Your task to perform on an android device: check battery use Image 0: 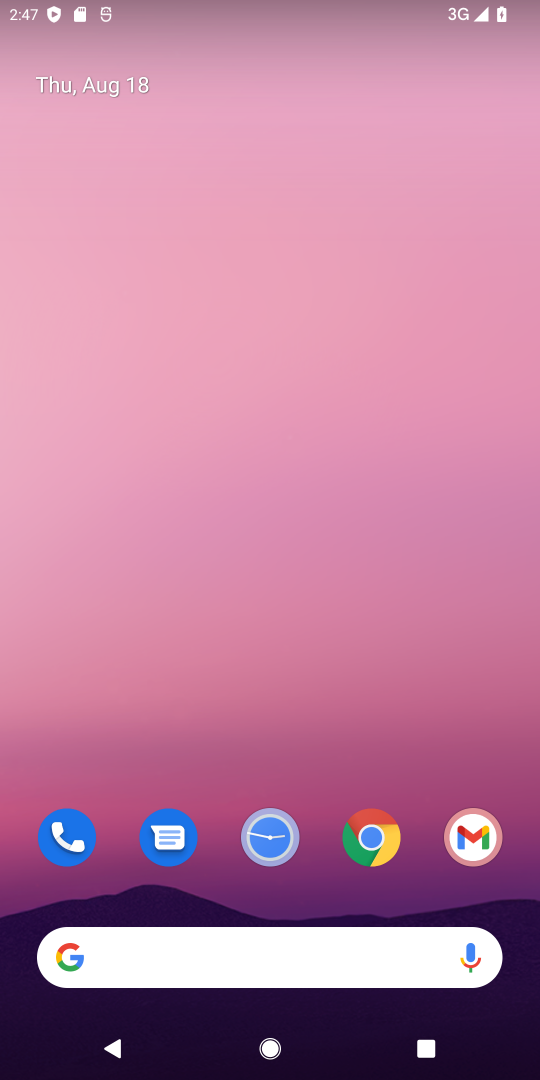
Step 0: drag from (316, 881) to (382, 187)
Your task to perform on an android device: check battery use Image 1: 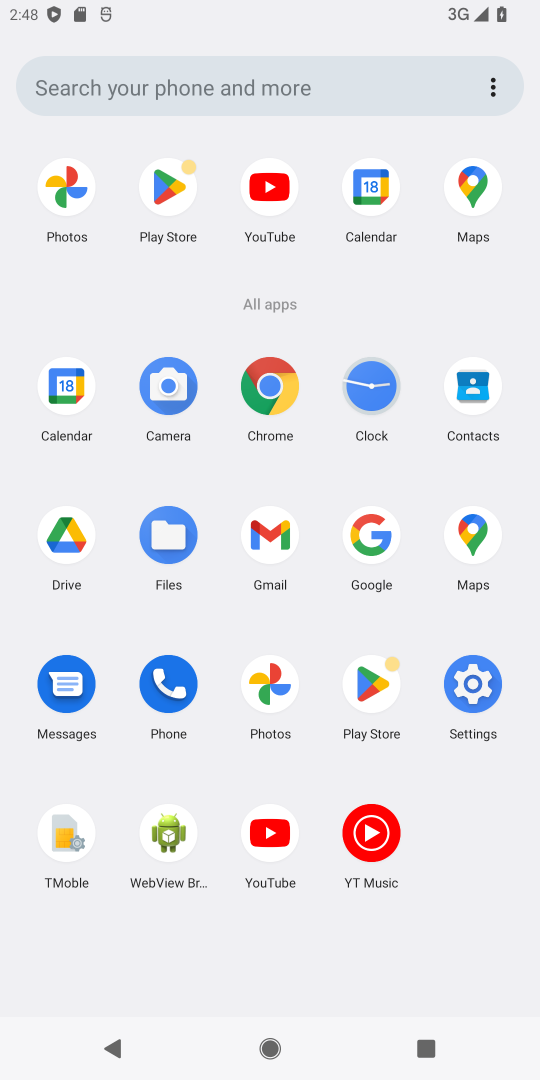
Step 1: click (473, 669)
Your task to perform on an android device: check battery use Image 2: 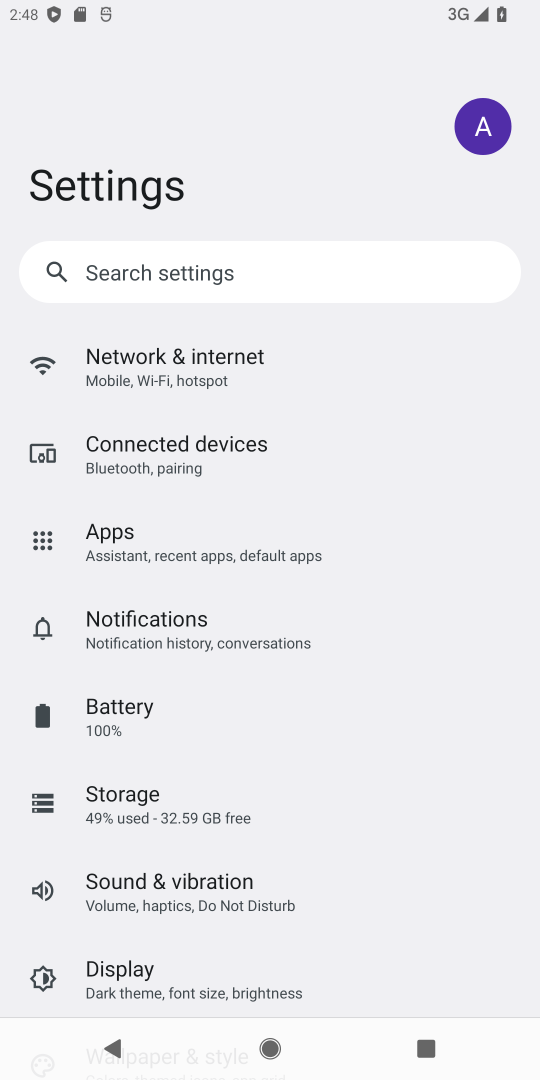
Step 2: drag from (161, 877) to (336, 209)
Your task to perform on an android device: check battery use Image 3: 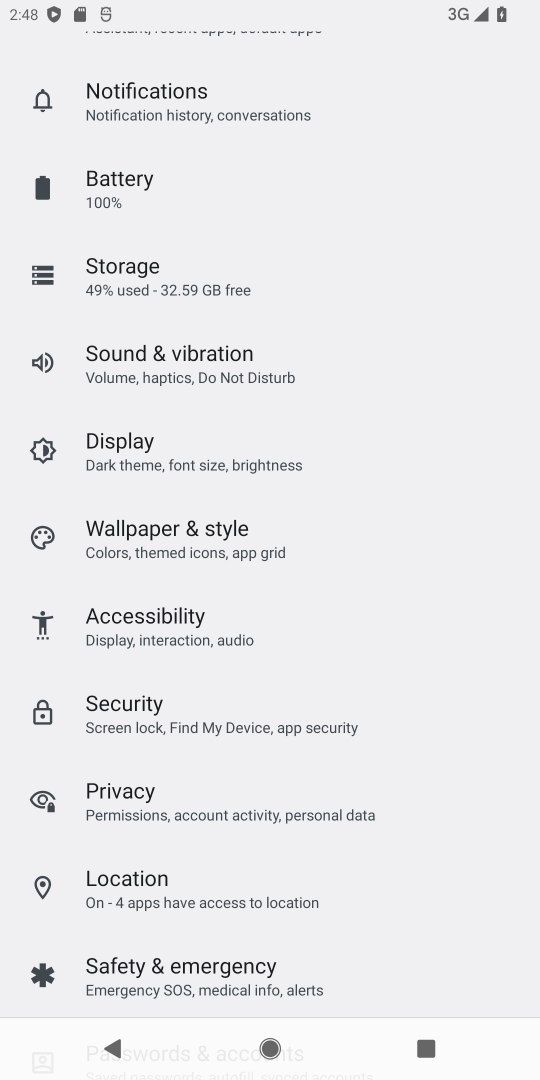
Step 3: click (173, 216)
Your task to perform on an android device: check battery use Image 4: 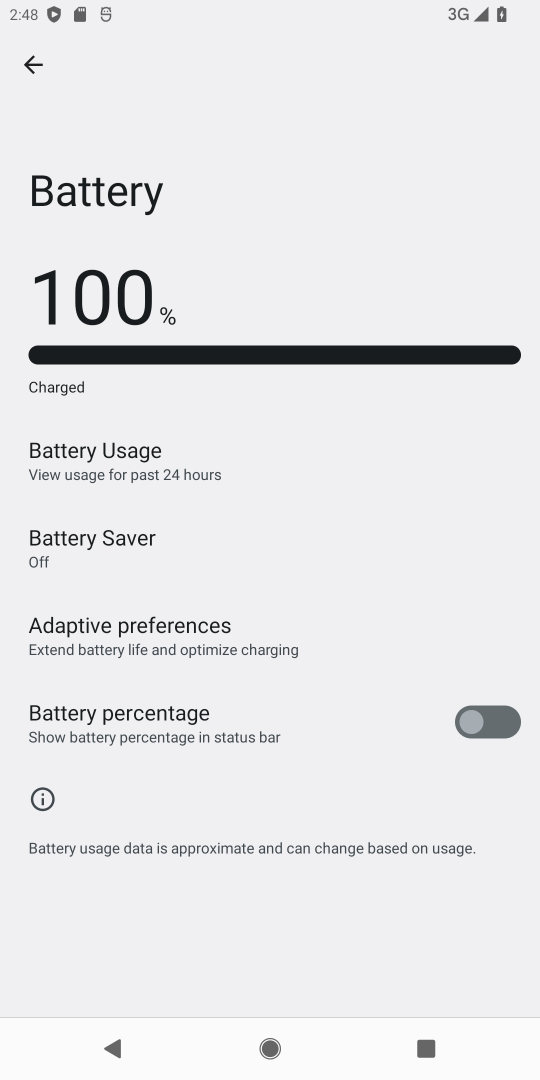
Step 4: task complete